Your task to perform on an android device: all mails in gmail Image 0: 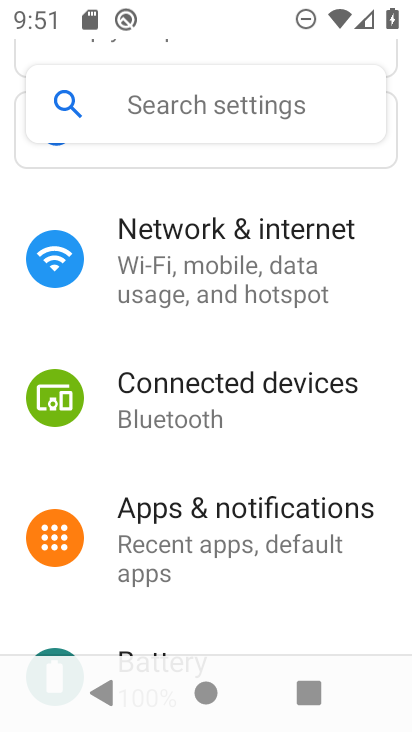
Step 0: press home button
Your task to perform on an android device: all mails in gmail Image 1: 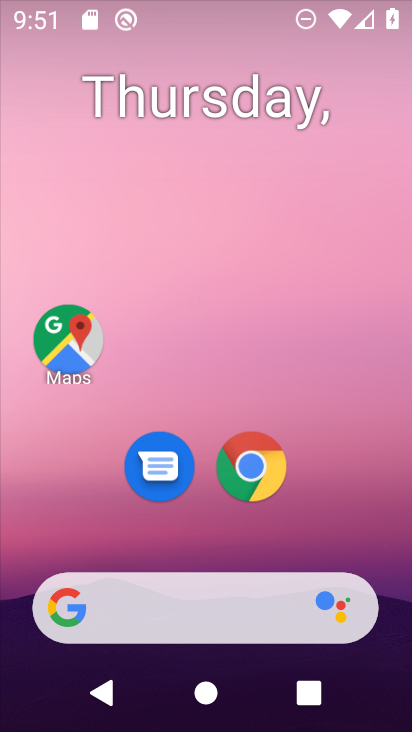
Step 1: drag from (314, 567) to (354, 41)
Your task to perform on an android device: all mails in gmail Image 2: 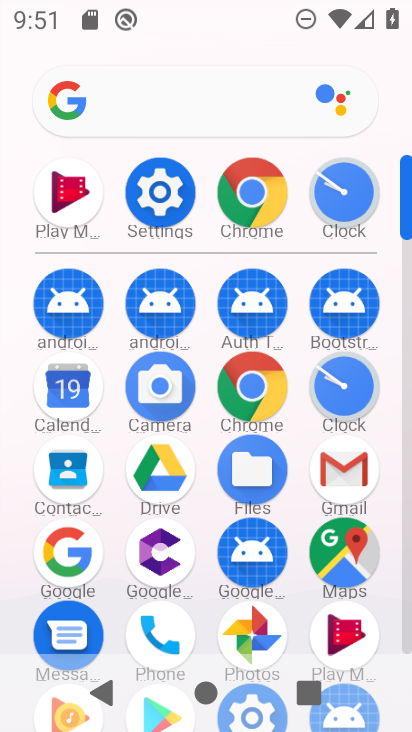
Step 2: click (330, 475)
Your task to perform on an android device: all mails in gmail Image 3: 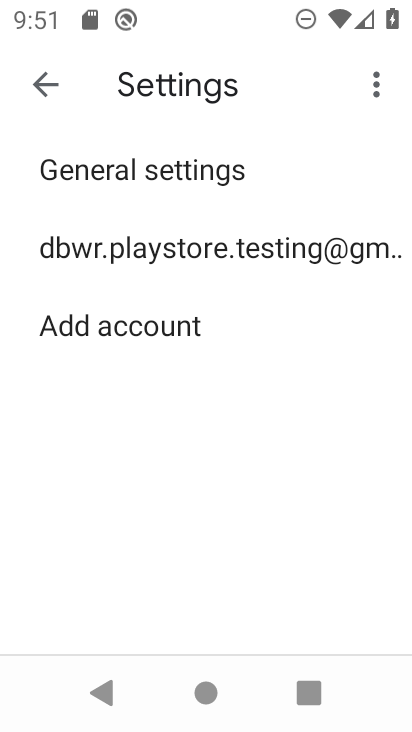
Step 3: press back button
Your task to perform on an android device: all mails in gmail Image 4: 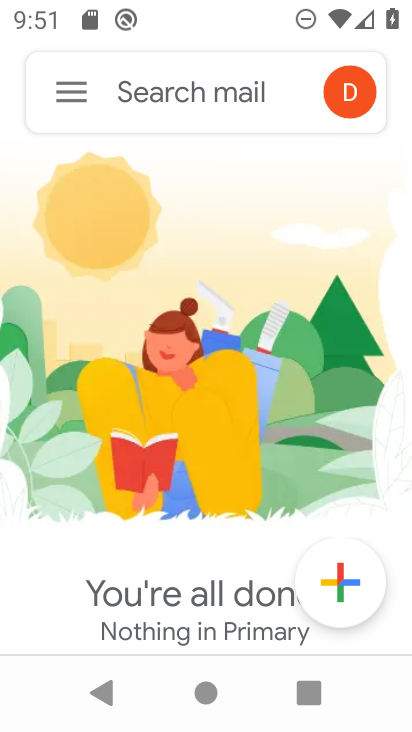
Step 4: click (58, 100)
Your task to perform on an android device: all mails in gmail Image 5: 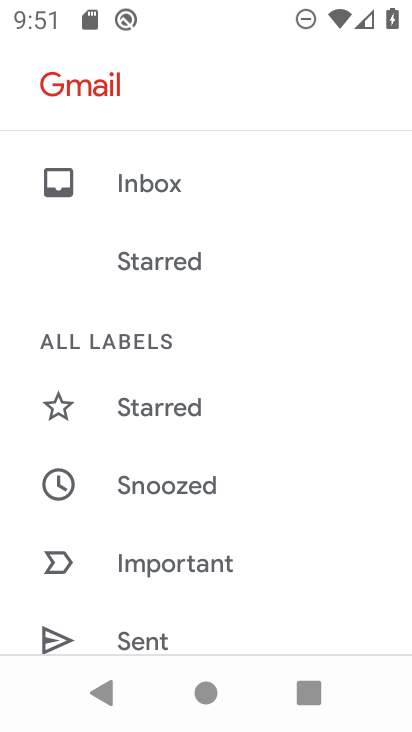
Step 5: drag from (273, 585) to (315, 89)
Your task to perform on an android device: all mails in gmail Image 6: 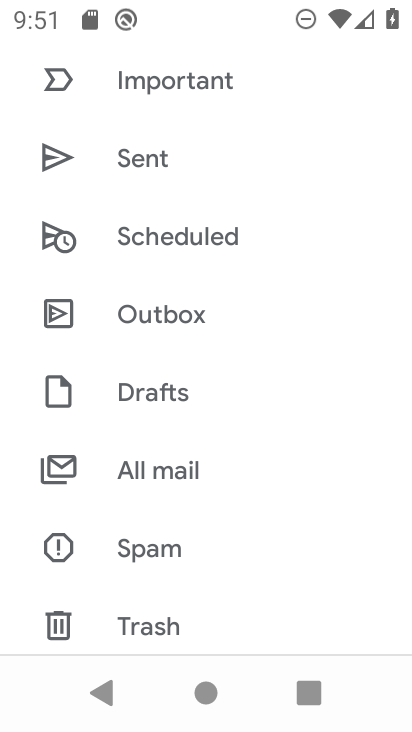
Step 6: click (219, 475)
Your task to perform on an android device: all mails in gmail Image 7: 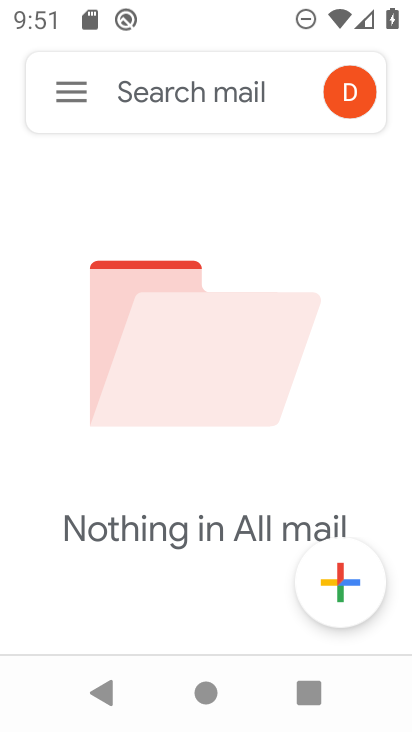
Step 7: task complete